Your task to perform on an android device: Open maps Image 0: 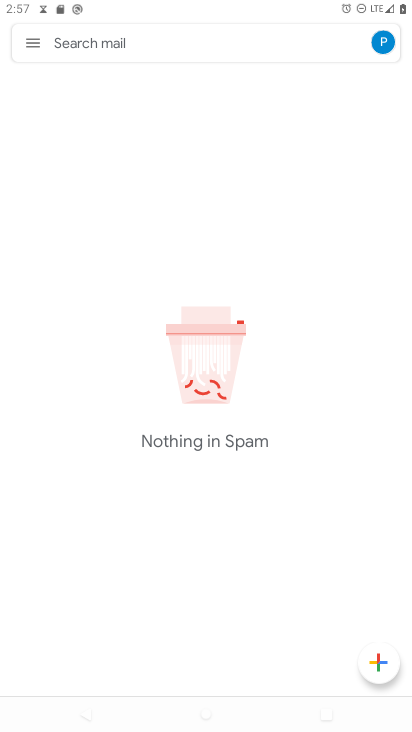
Step 0: press home button
Your task to perform on an android device: Open maps Image 1: 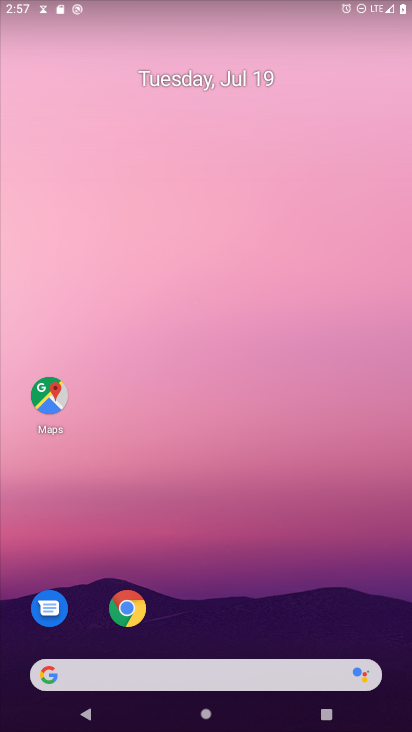
Step 1: drag from (311, 572) to (283, 18)
Your task to perform on an android device: Open maps Image 2: 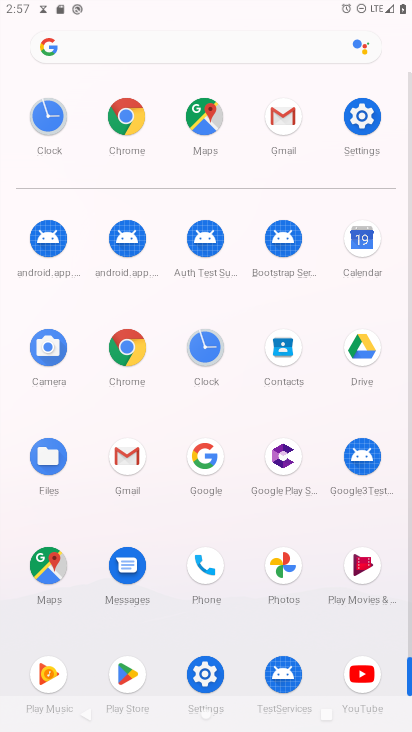
Step 2: click (56, 563)
Your task to perform on an android device: Open maps Image 3: 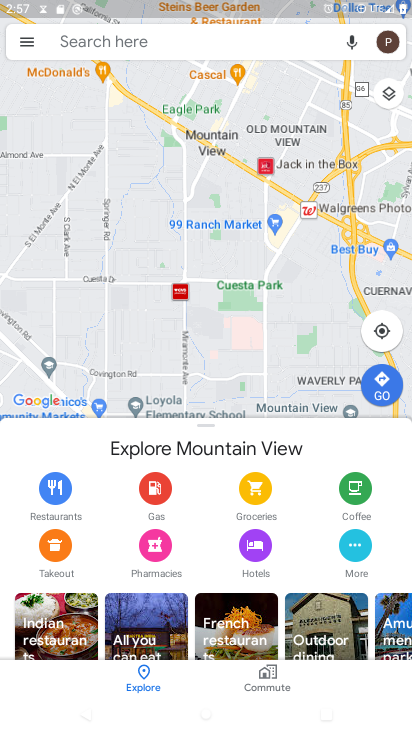
Step 3: task complete